Your task to perform on an android device: Open Google Image 0: 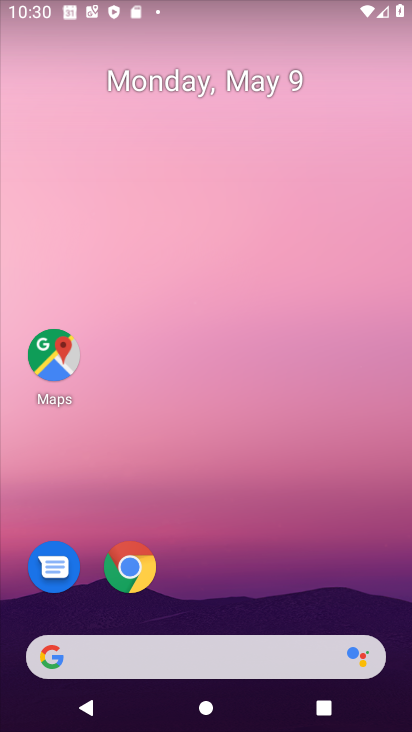
Step 0: drag from (213, 652) to (157, 123)
Your task to perform on an android device: Open Google Image 1: 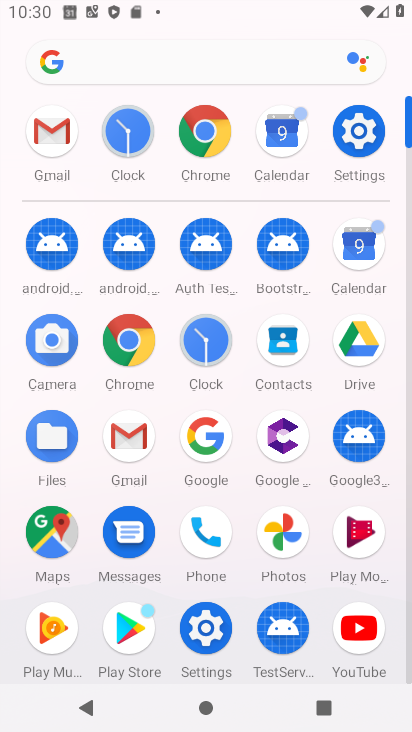
Step 1: click (211, 443)
Your task to perform on an android device: Open Google Image 2: 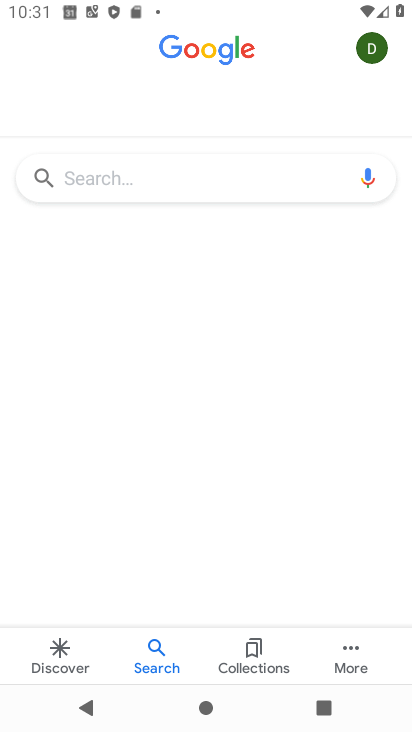
Step 2: task complete